Your task to perform on an android device: What is the news today? Image 0: 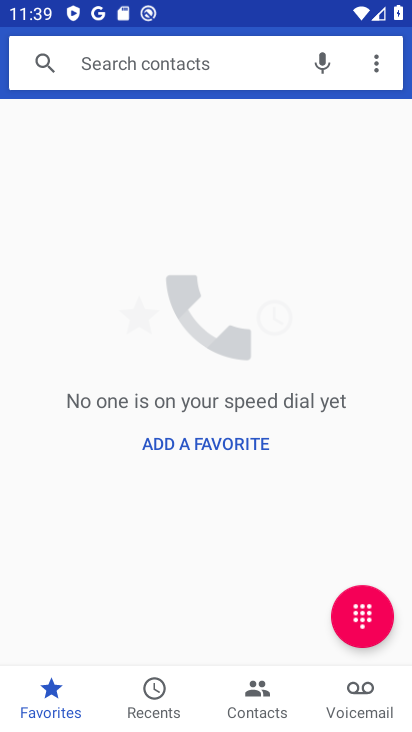
Step 0: press back button
Your task to perform on an android device: What is the news today? Image 1: 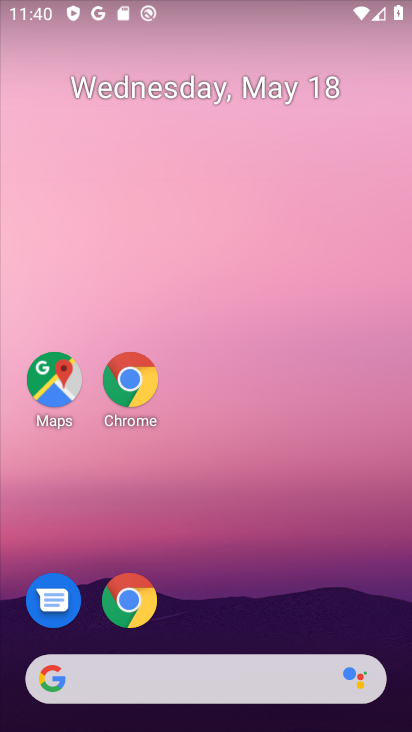
Step 1: click (344, 338)
Your task to perform on an android device: What is the news today? Image 2: 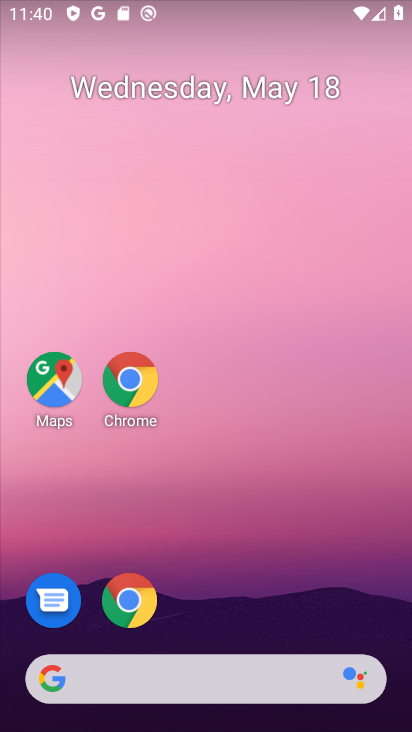
Step 2: click (409, 398)
Your task to perform on an android device: What is the news today? Image 3: 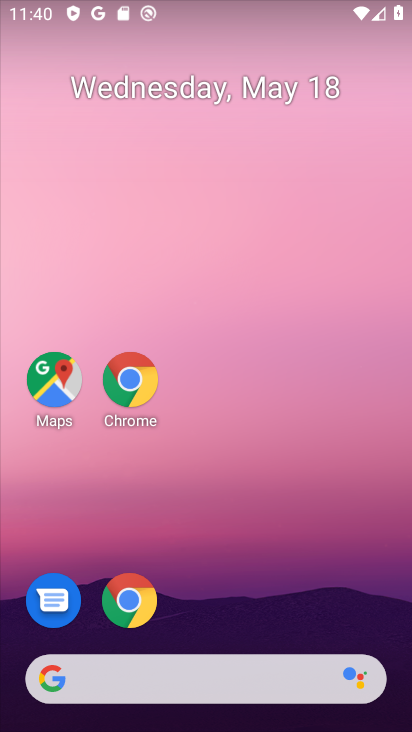
Step 3: task complete